Your task to perform on an android device: Open Amazon Image 0: 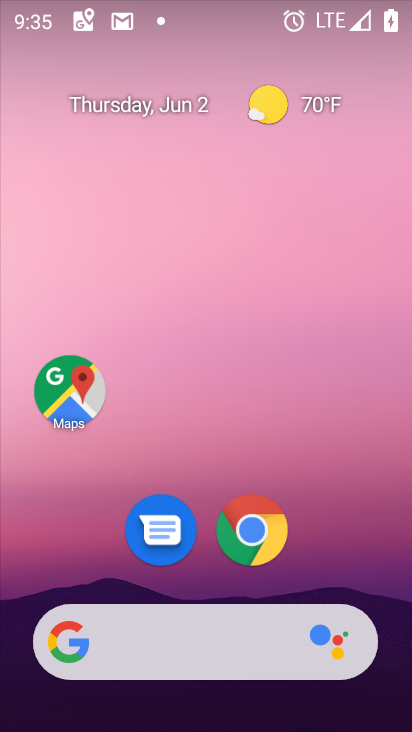
Step 0: click (244, 535)
Your task to perform on an android device: Open Amazon Image 1: 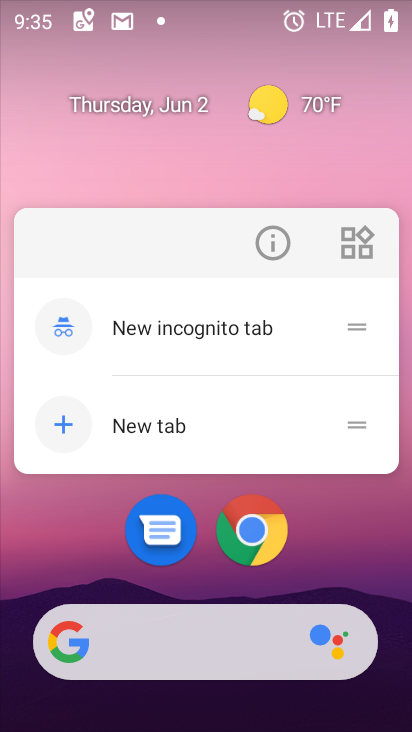
Step 1: click (252, 532)
Your task to perform on an android device: Open Amazon Image 2: 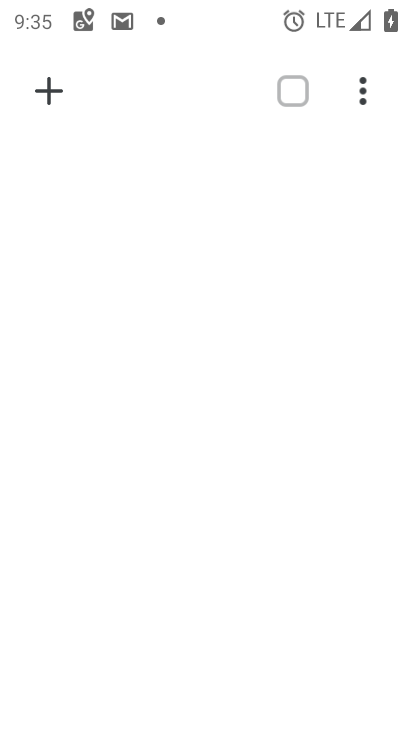
Step 2: click (57, 85)
Your task to perform on an android device: Open Amazon Image 3: 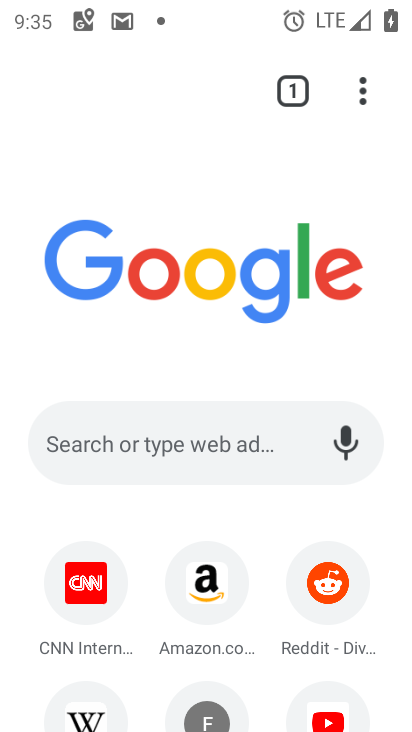
Step 3: click (210, 588)
Your task to perform on an android device: Open Amazon Image 4: 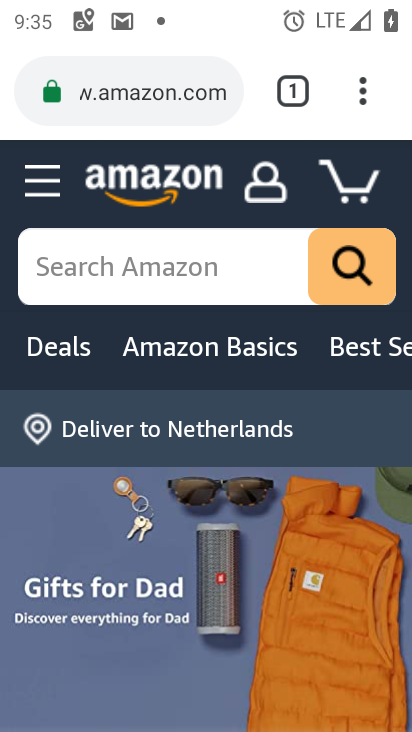
Step 4: task complete